Your task to perform on an android device: Open Wikipedia Image 0: 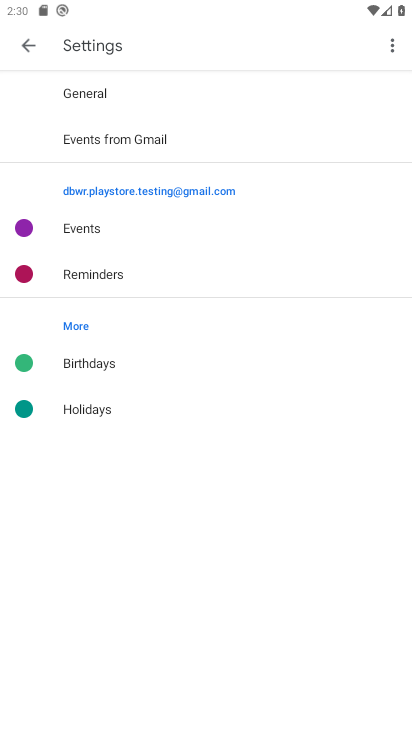
Step 0: press home button
Your task to perform on an android device: Open Wikipedia Image 1: 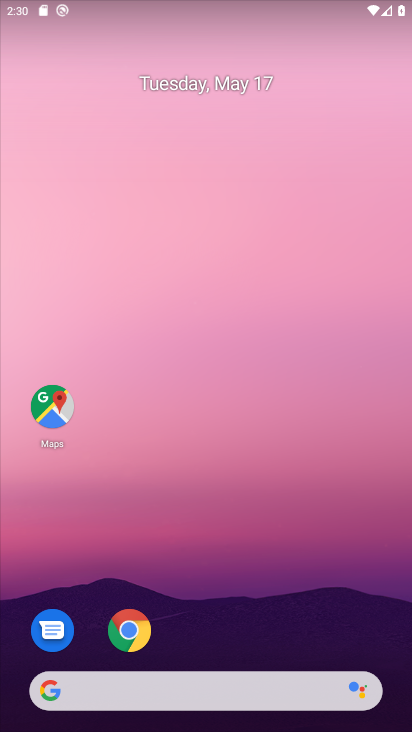
Step 1: click (130, 630)
Your task to perform on an android device: Open Wikipedia Image 2: 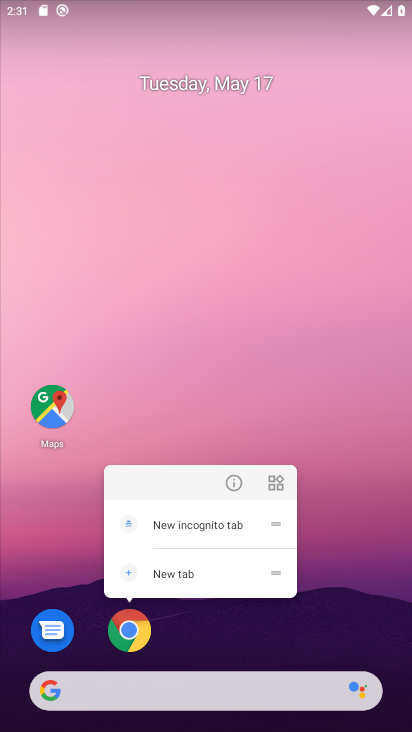
Step 2: click (133, 630)
Your task to perform on an android device: Open Wikipedia Image 3: 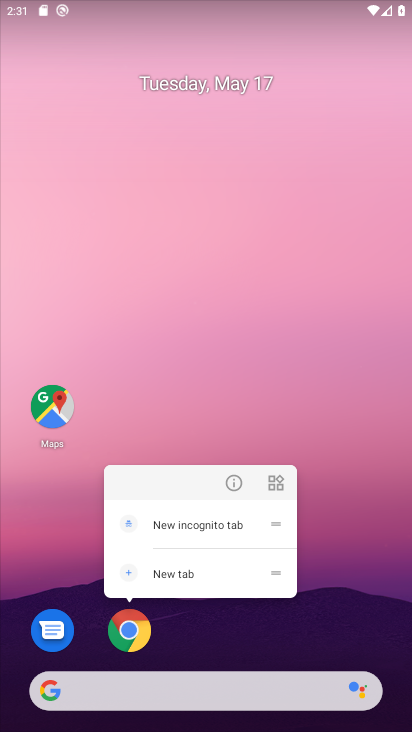
Step 3: click (133, 630)
Your task to perform on an android device: Open Wikipedia Image 4: 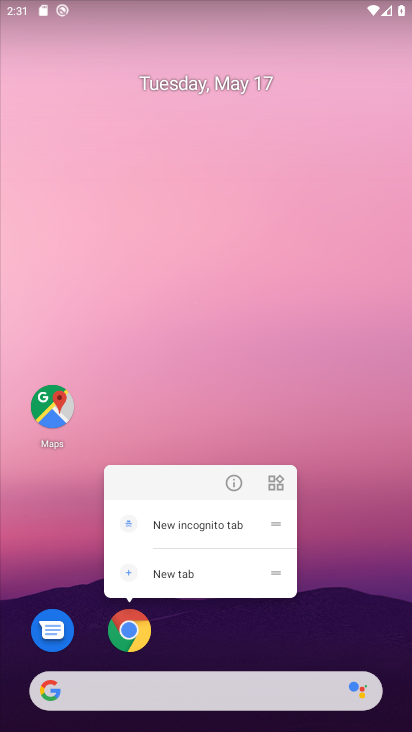
Step 4: click (147, 635)
Your task to perform on an android device: Open Wikipedia Image 5: 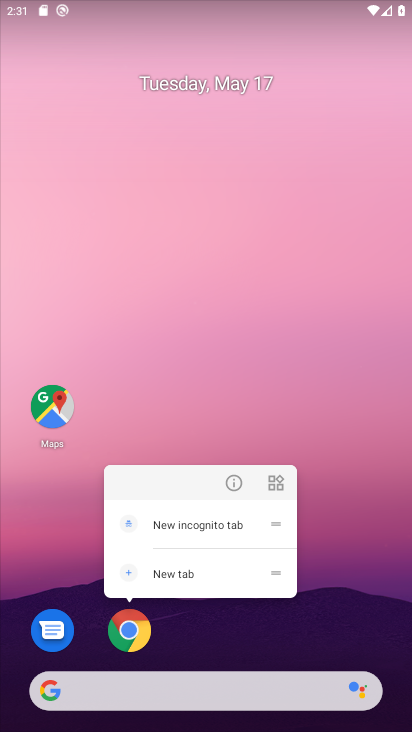
Step 5: click (143, 629)
Your task to perform on an android device: Open Wikipedia Image 6: 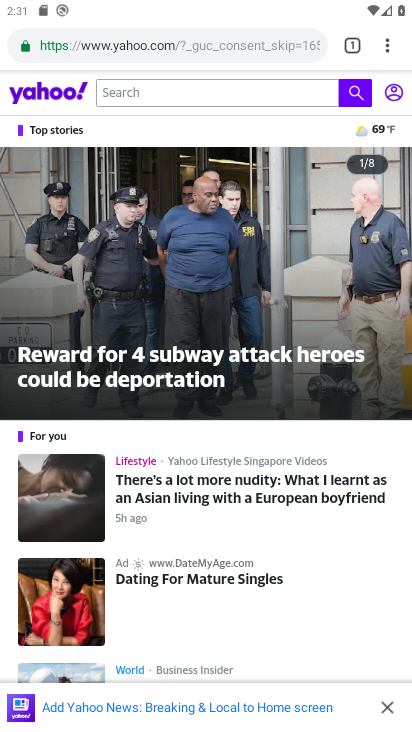
Step 6: click (356, 44)
Your task to perform on an android device: Open Wikipedia Image 7: 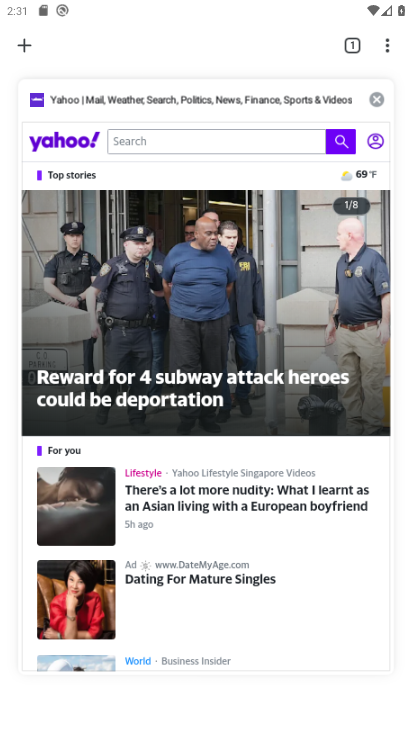
Step 7: click (22, 47)
Your task to perform on an android device: Open Wikipedia Image 8: 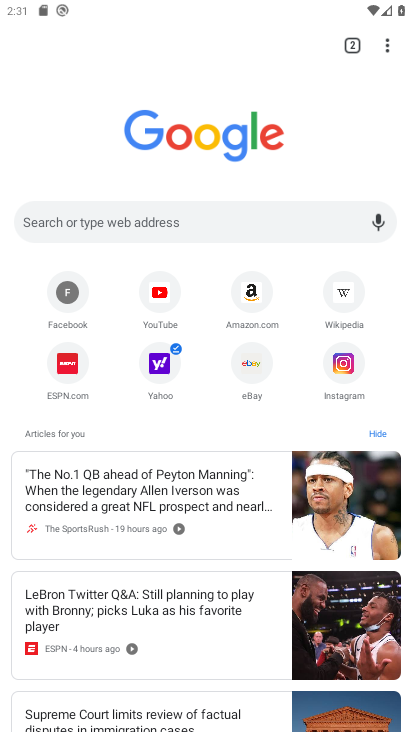
Step 8: click (336, 294)
Your task to perform on an android device: Open Wikipedia Image 9: 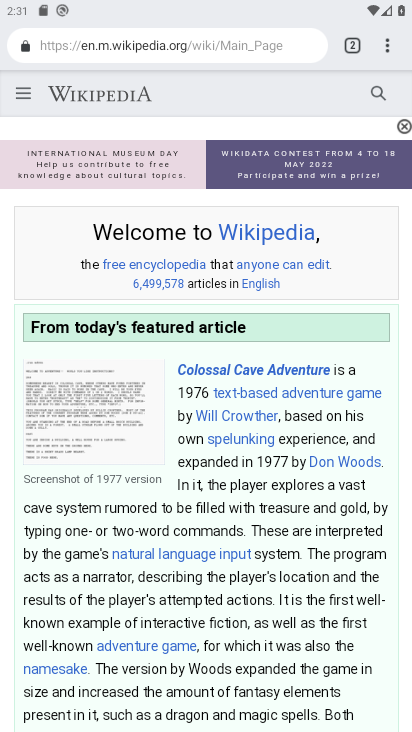
Step 9: task complete